Your task to perform on an android device: toggle airplane mode Image 0: 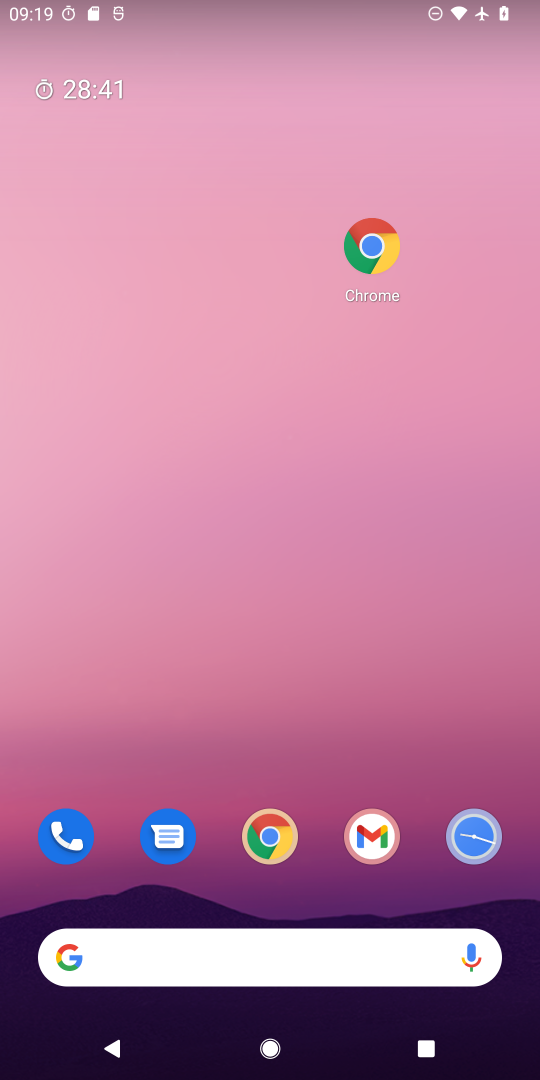
Step 0: click (346, 366)
Your task to perform on an android device: toggle airplane mode Image 1: 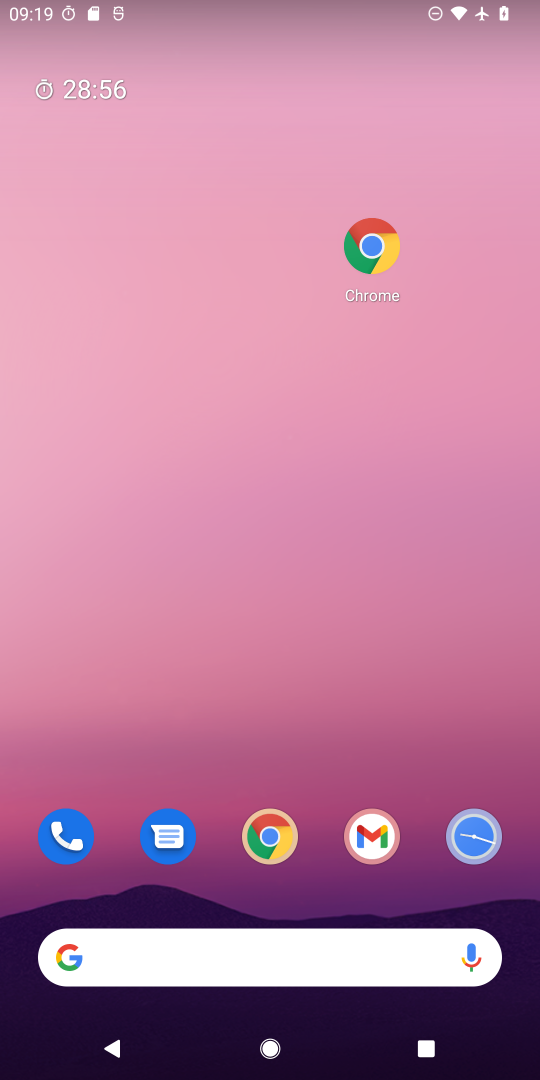
Step 1: drag from (329, 922) to (306, 230)
Your task to perform on an android device: toggle airplane mode Image 2: 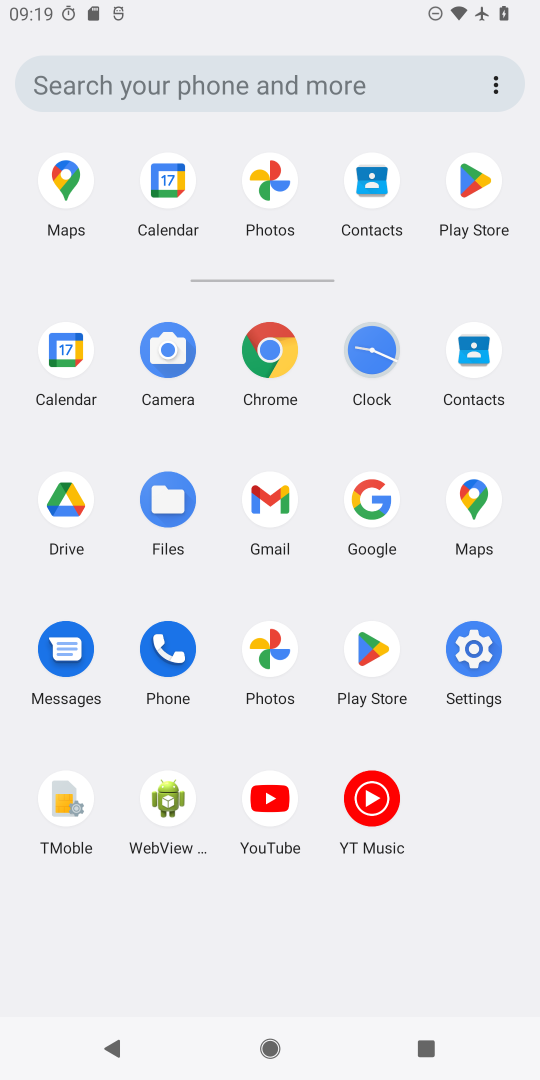
Step 2: click (485, 648)
Your task to perform on an android device: toggle airplane mode Image 3: 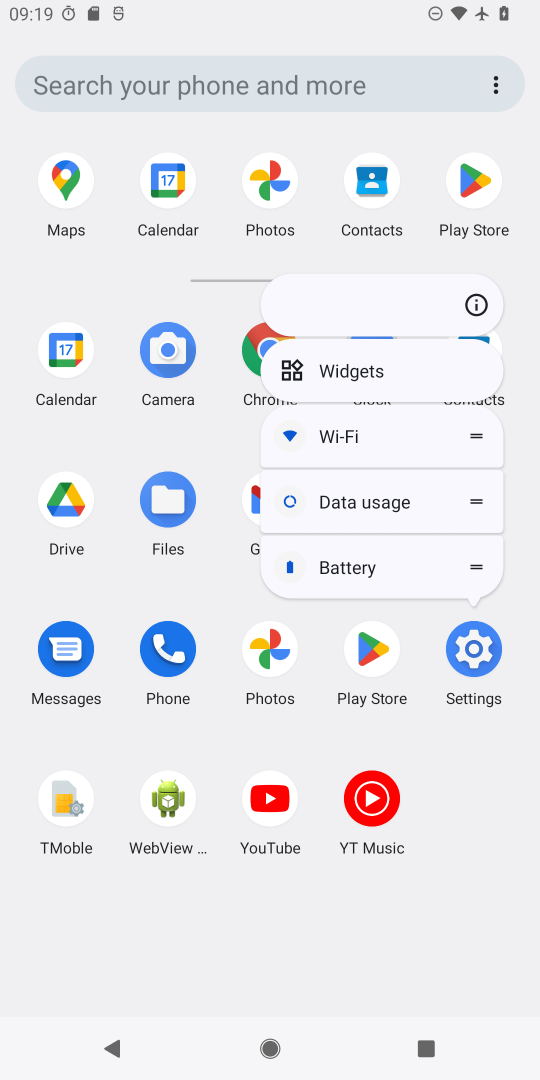
Step 3: click (456, 647)
Your task to perform on an android device: toggle airplane mode Image 4: 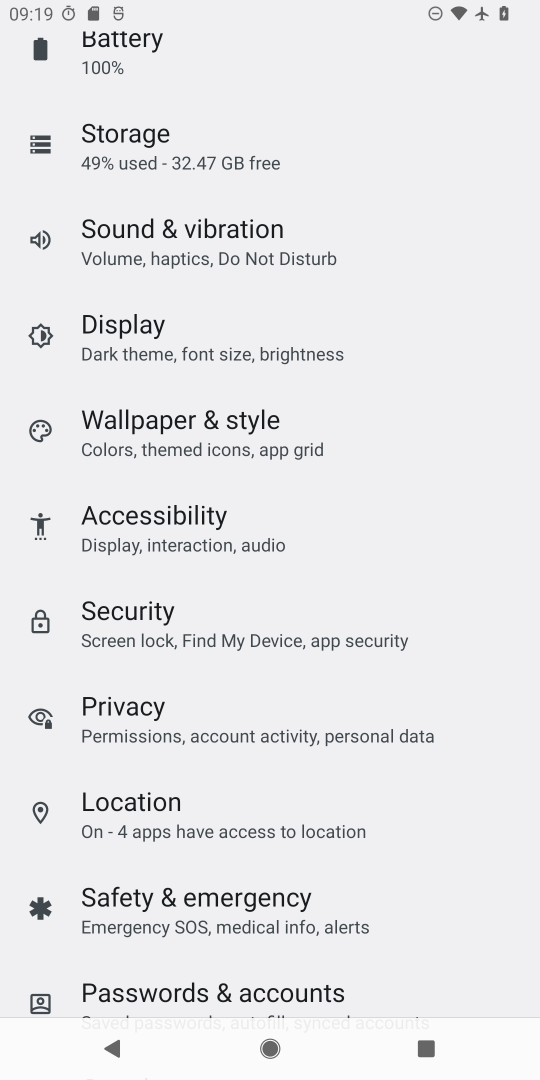
Step 4: drag from (161, 73) to (198, 772)
Your task to perform on an android device: toggle airplane mode Image 5: 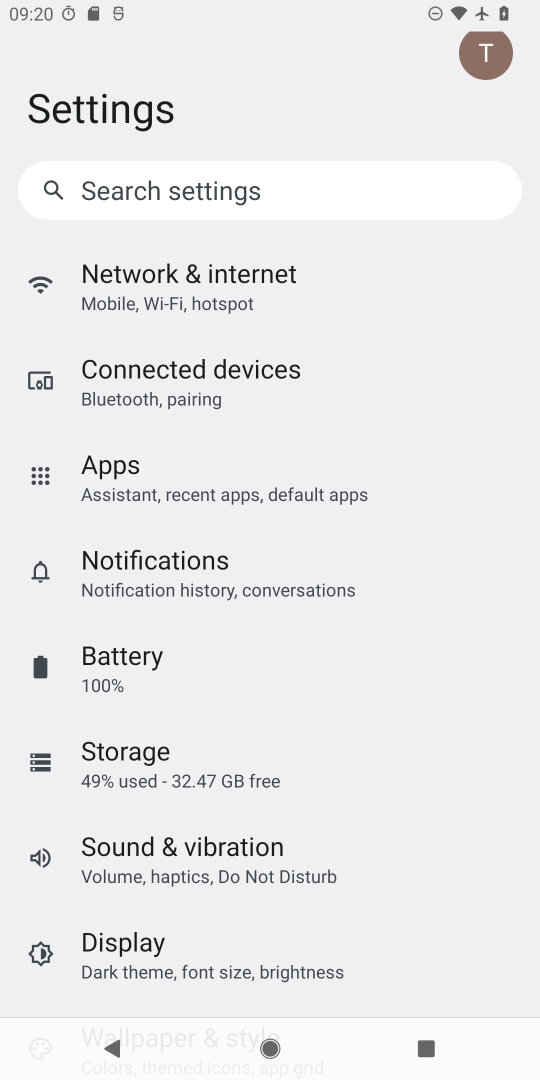
Step 5: click (237, 268)
Your task to perform on an android device: toggle airplane mode Image 6: 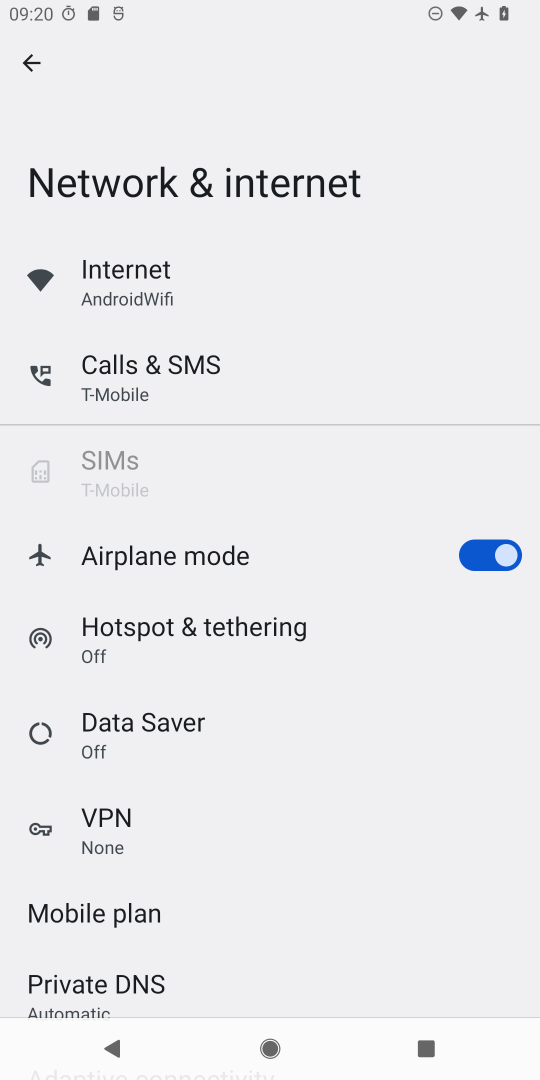
Step 6: click (501, 548)
Your task to perform on an android device: toggle airplane mode Image 7: 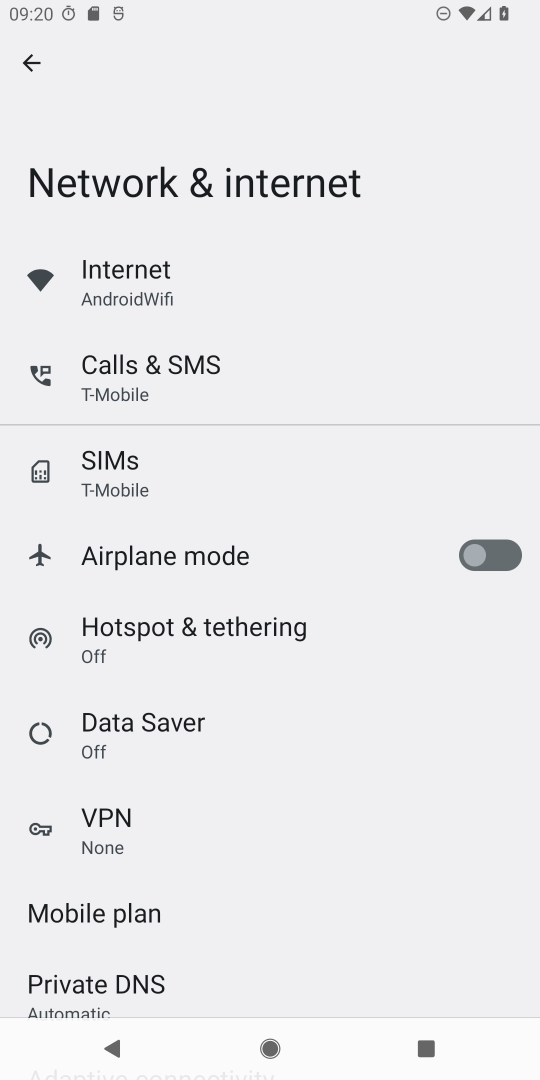
Step 7: task complete